Your task to perform on an android device: turn notification dots off Image 0: 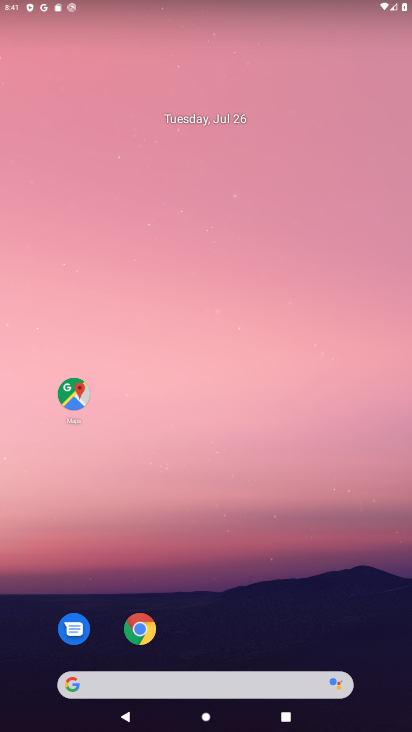
Step 0: drag from (303, 645) to (222, 53)
Your task to perform on an android device: turn notification dots off Image 1: 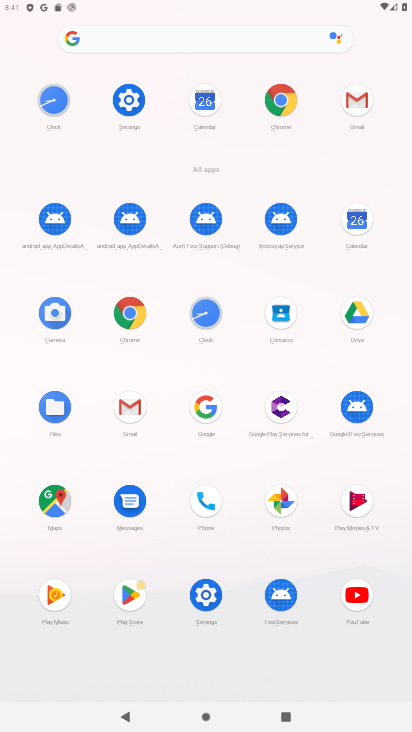
Step 1: click (196, 604)
Your task to perform on an android device: turn notification dots off Image 2: 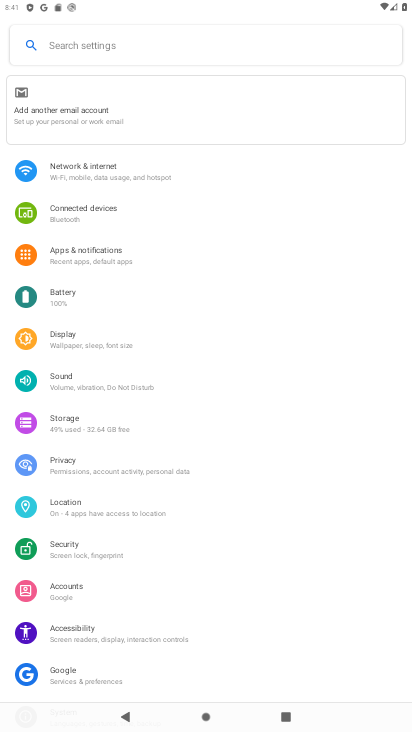
Step 2: click (86, 254)
Your task to perform on an android device: turn notification dots off Image 3: 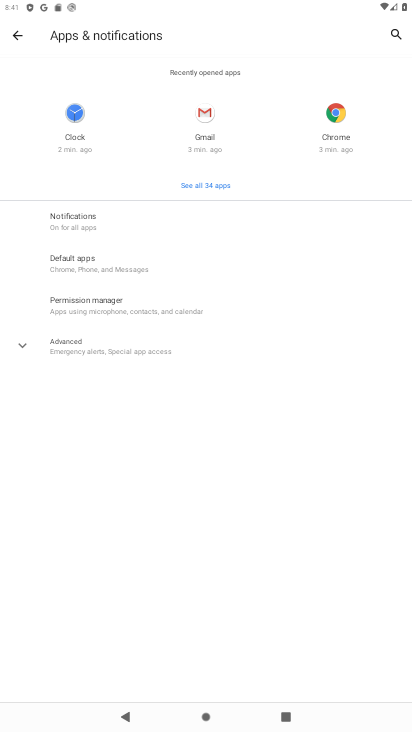
Step 3: click (103, 212)
Your task to perform on an android device: turn notification dots off Image 4: 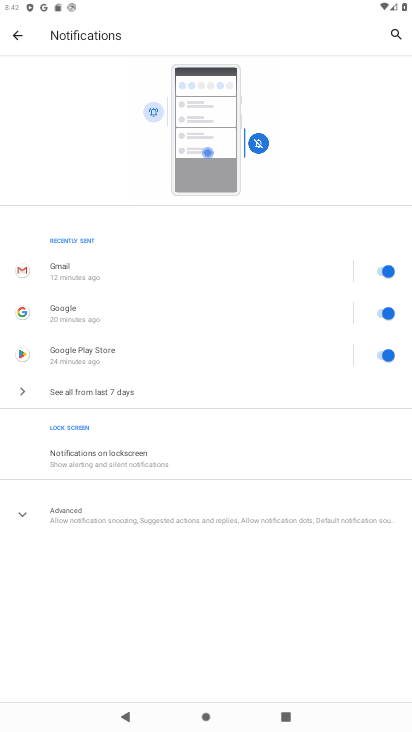
Step 4: click (83, 522)
Your task to perform on an android device: turn notification dots off Image 5: 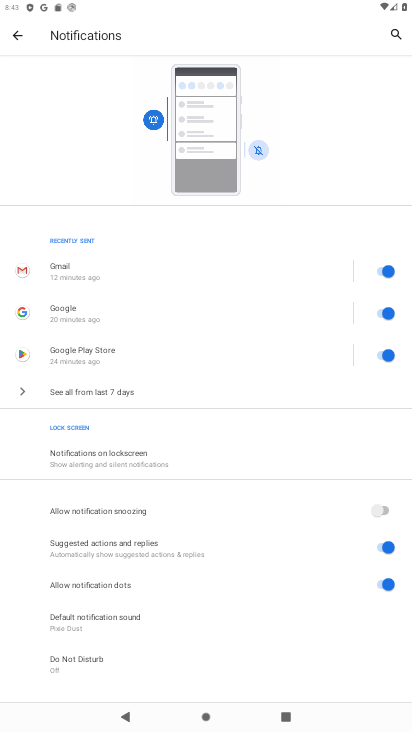
Step 5: click (112, 586)
Your task to perform on an android device: turn notification dots off Image 6: 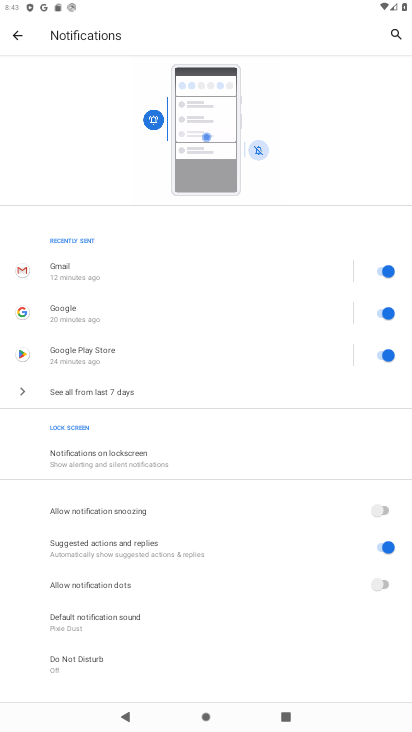
Step 6: task complete